Your task to perform on an android device: Go to location settings Image 0: 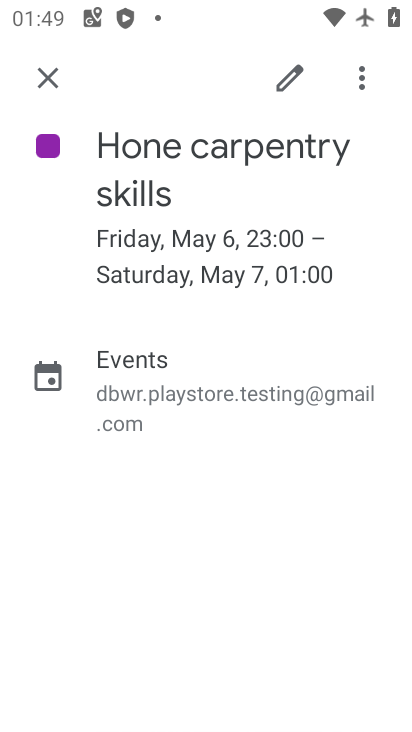
Step 0: press home button
Your task to perform on an android device: Go to location settings Image 1: 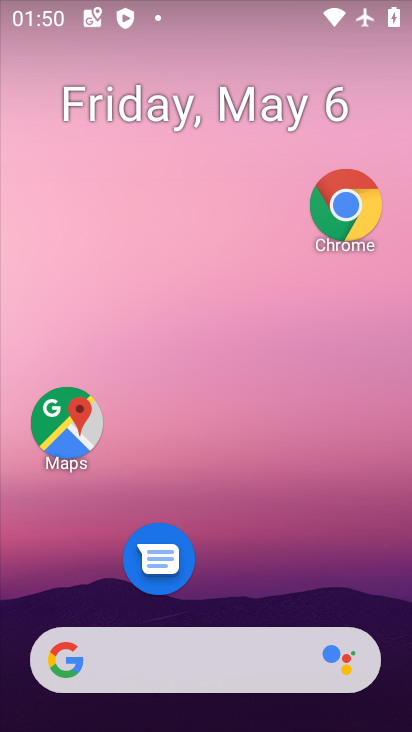
Step 1: drag from (195, 464) to (260, 93)
Your task to perform on an android device: Go to location settings Image 2: 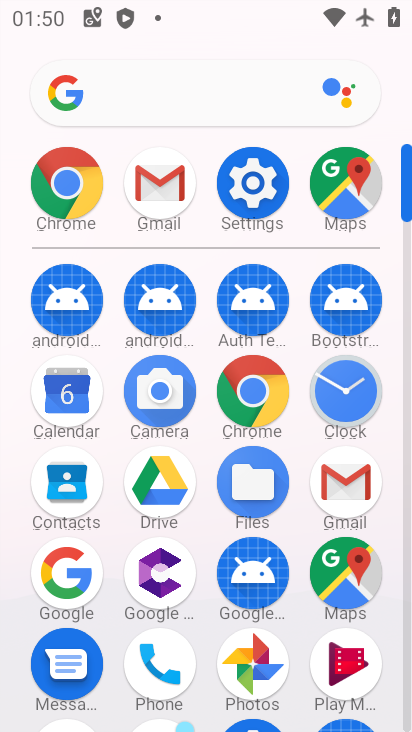
Step 2: click (264, 195)
Your task to perform on an android device: Go to location settings Image 3: 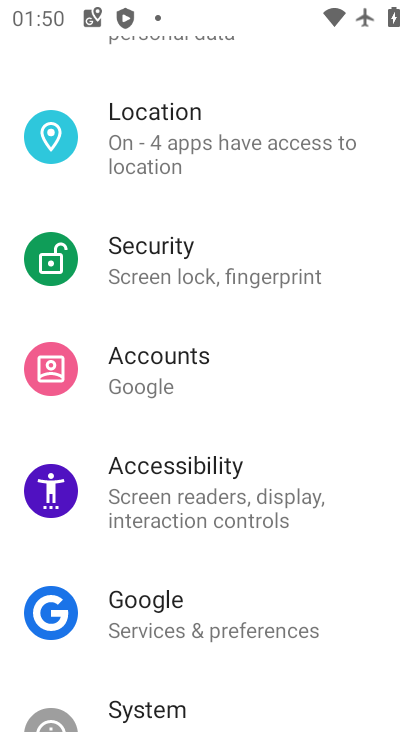
Step 3: click (159, 139)
Your task to perform on an android device: Go to location settings Image 4: 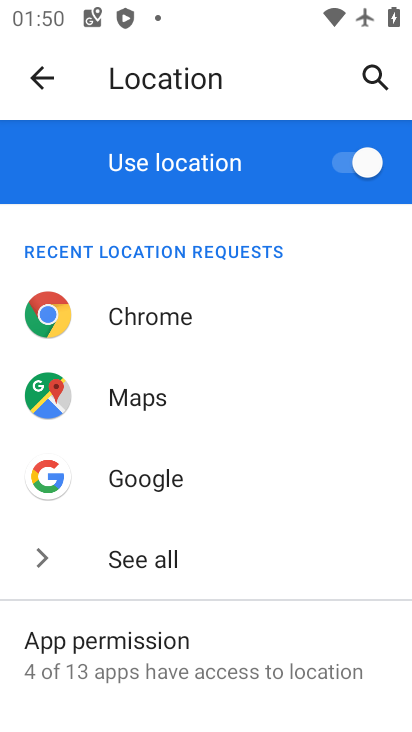
Step 4: task complete